Your task to perform on an android device: Find a good burger place on Maps Image 0: 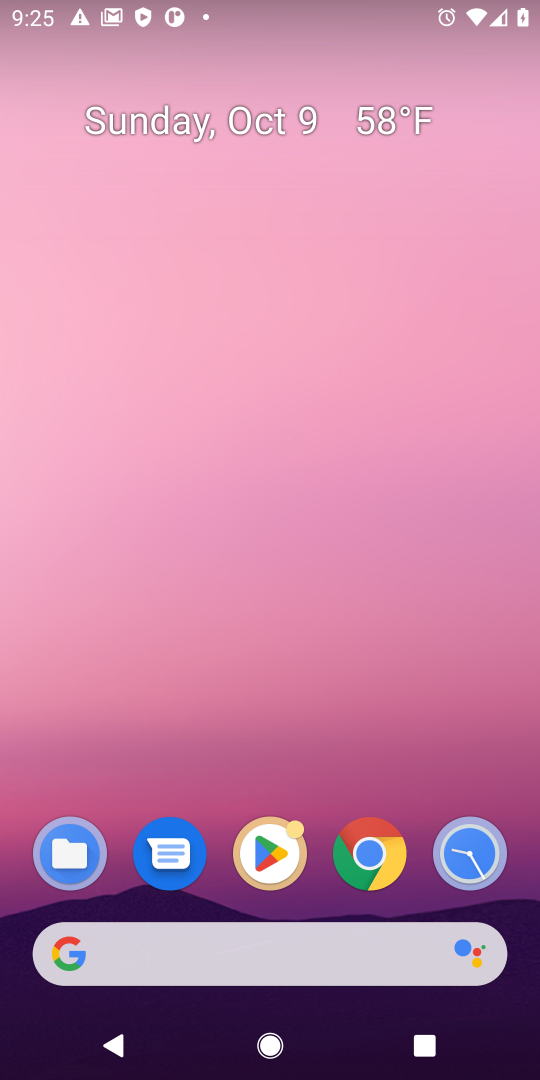
Step 0: drag from (352, 772) to (450, 438)
Your task to perform on an android device: Find a good burger place on Maps Image 1: 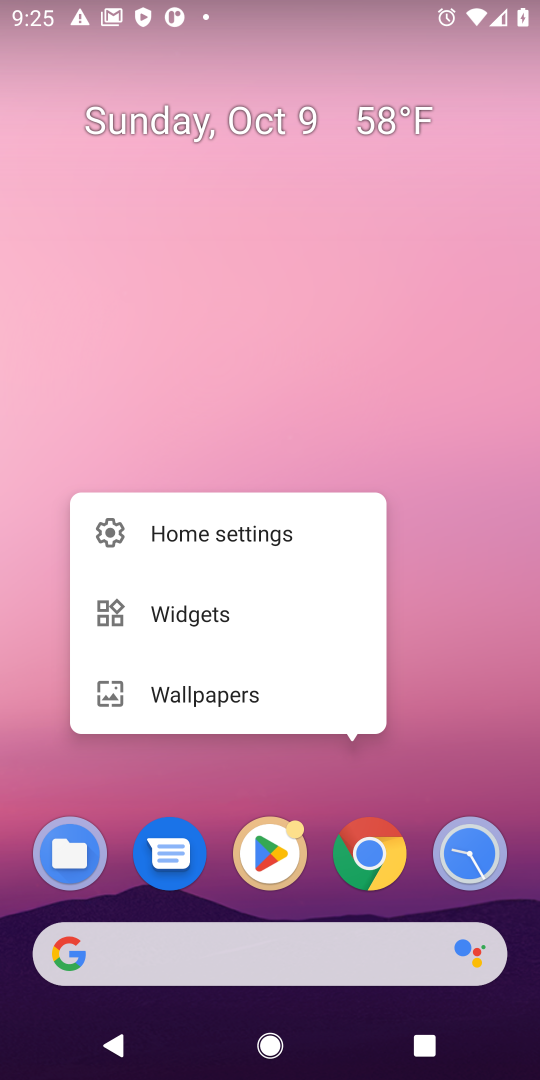
Step 1: click (466, 623)
Your task to perform on an android device: Find a good burger place on Maps Image 2: 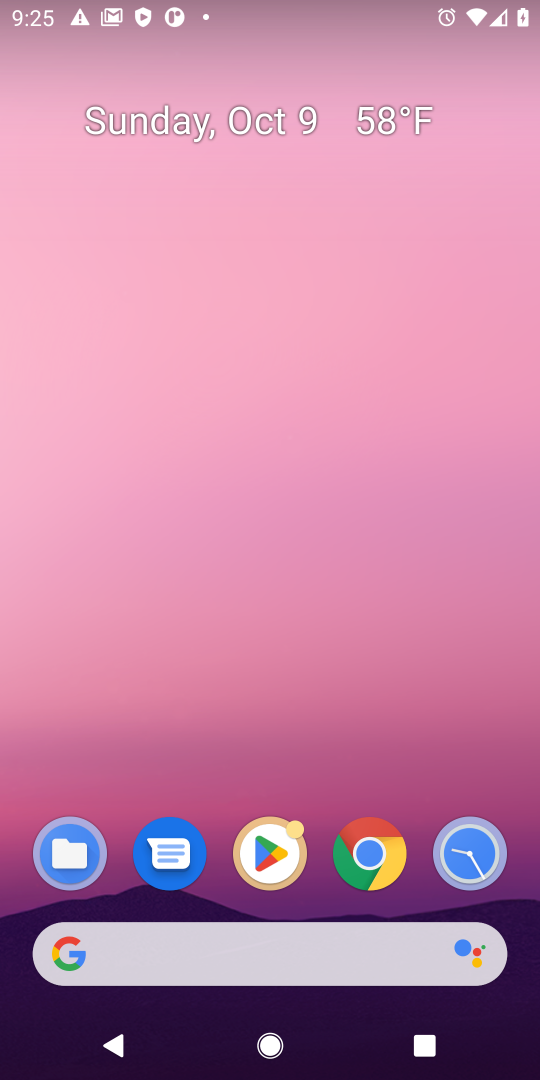
Step 2: drag from (427, 747) to (534, 752)
Your task to perform on an android device: Find a good burger place on Maps Image 3: 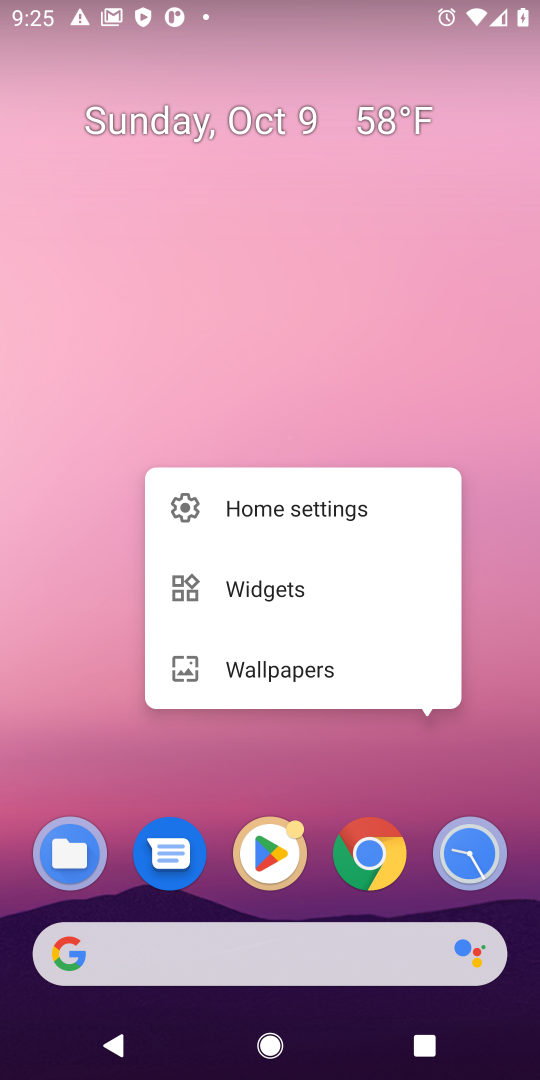
Step 3: drag from (487, 782) to (409, 65)
Your task to perform on an android device: Find a good burger place on Maps Image 4: 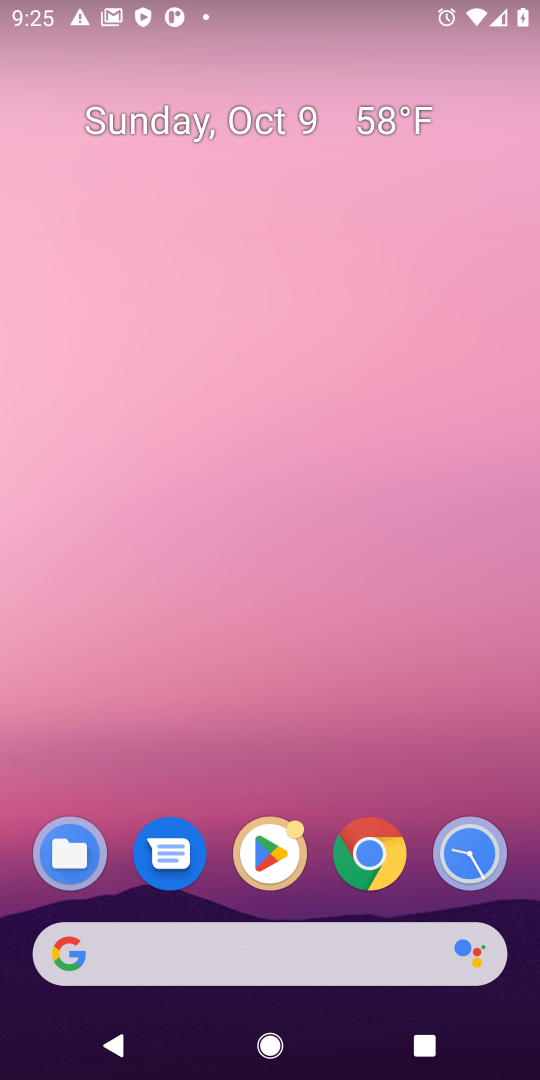
Step 4: drag from (362, 785) to (315, 320)
Your task to perform on an android device: Find a good burger place on Maps Image 5: 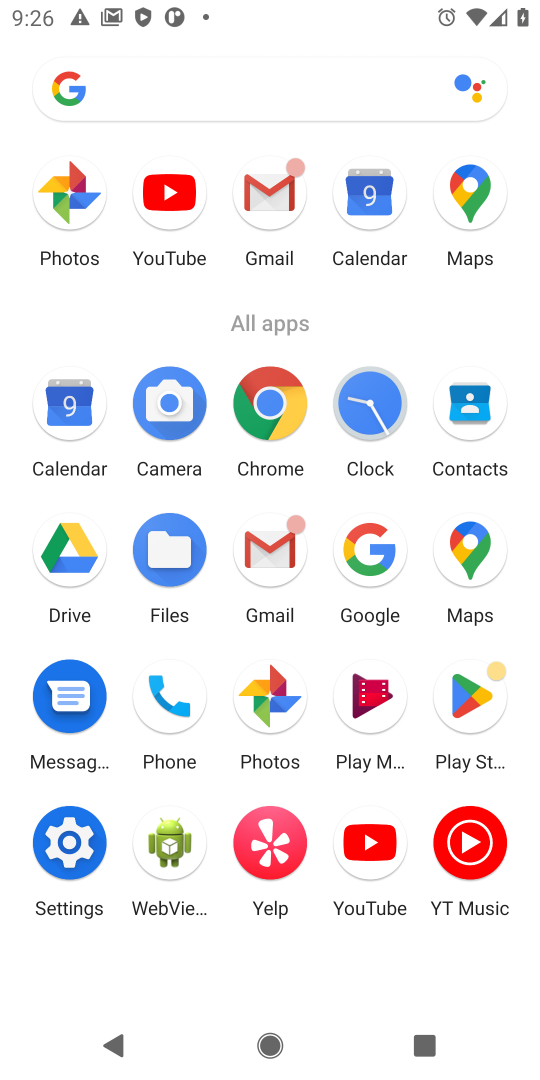
Step 5: click (451, 205)
Your task to perform on an android device: Find a good burger place on Maps Image 6: 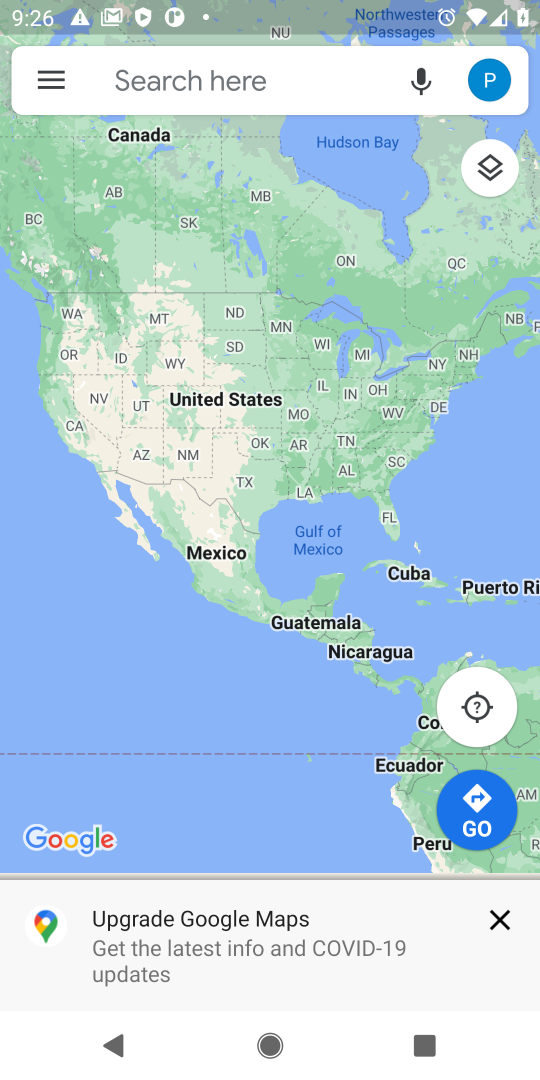
Step 6: click (231, 86)
Your task to perform on an android device: Find a good burger place on Maps Image 7: 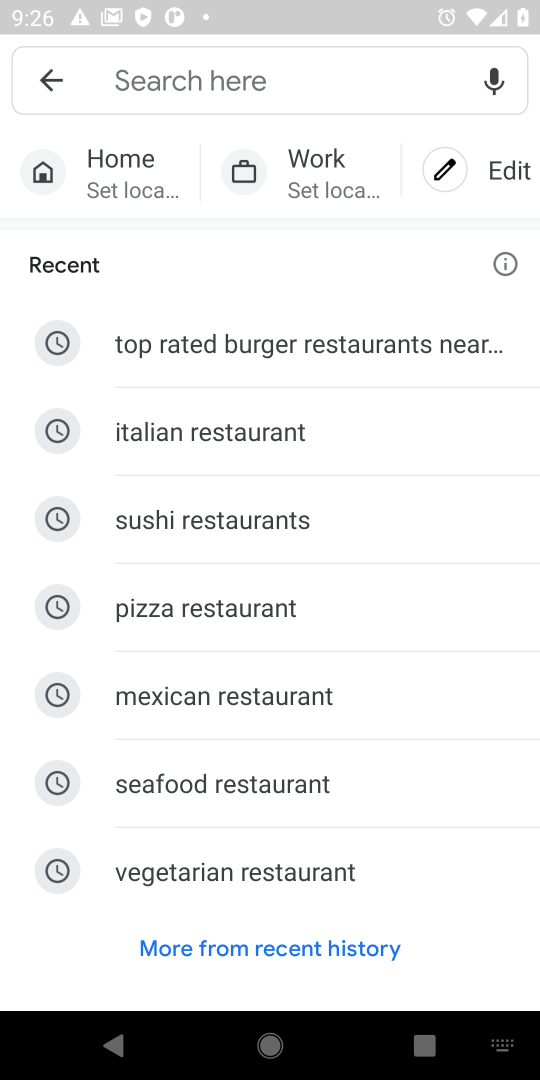
Step 7: type "burger place"
Your task to perform on an android device: Find a good burger place on Maps Image 8: 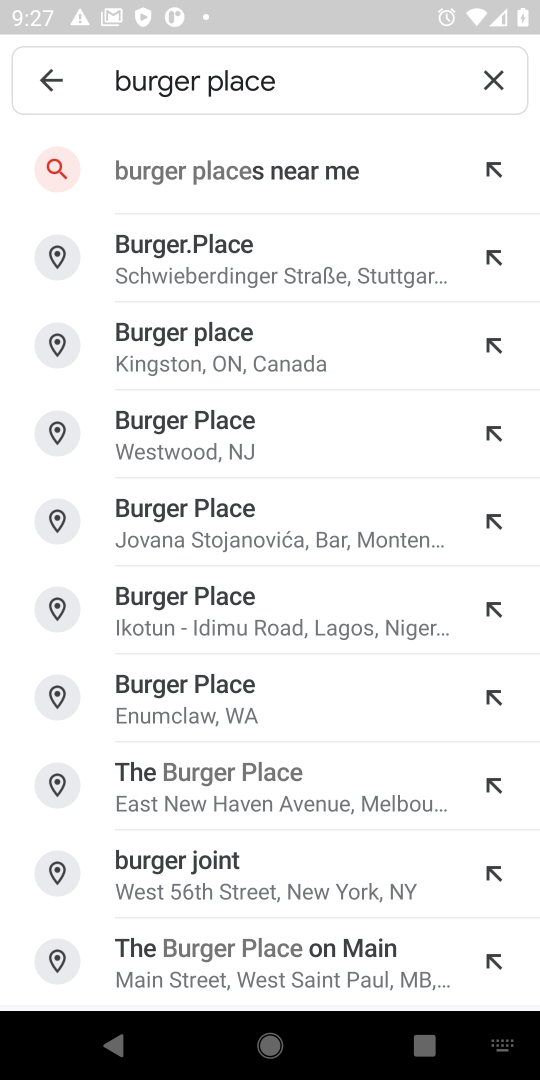
Step 8: click (317, 167)
Your task to perform on an android device: Find a good burger place on Maps Image 9: 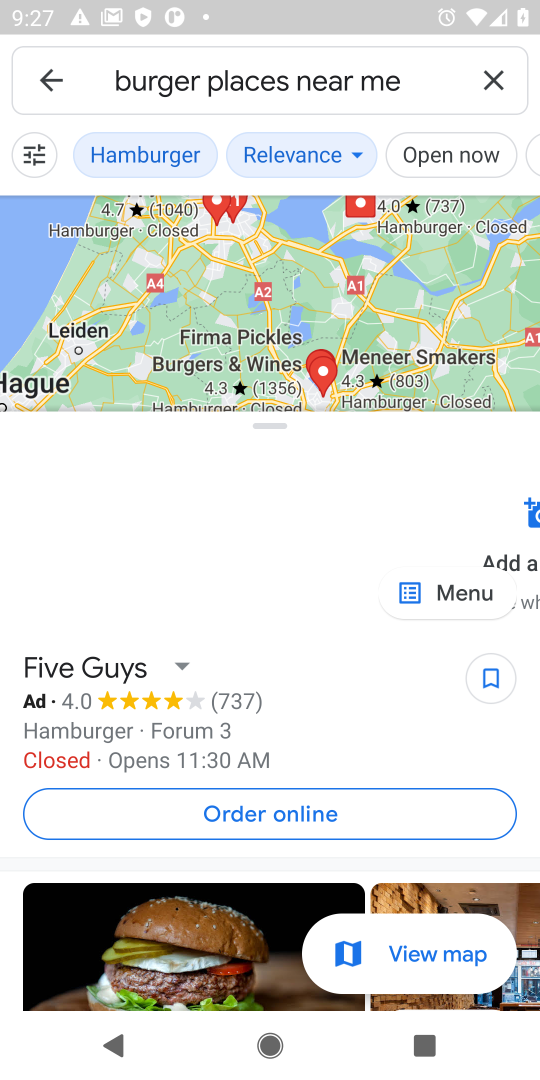
Step 9: task complete